Your task to perform on an android device: change text size in settings app Image 0: 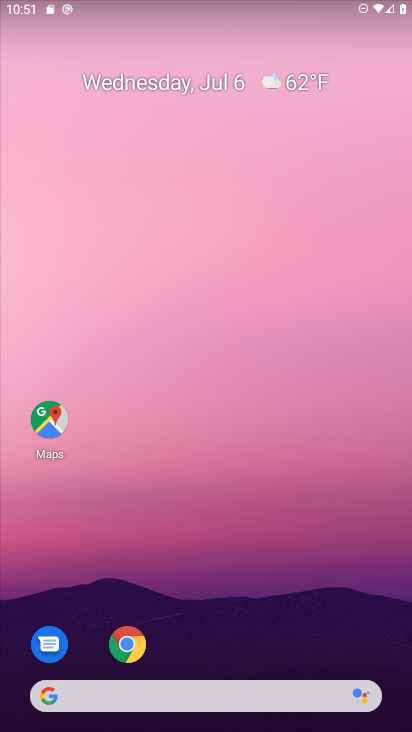
Step 0: press home button
Your task to perform on an android device: change text size in settings app Image 1: 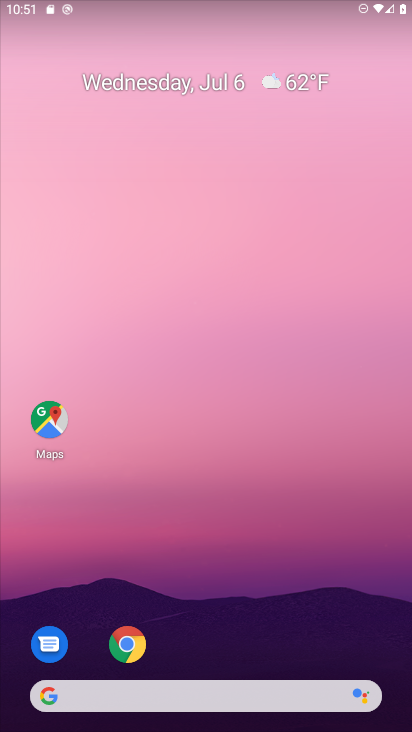
Step 1: drag from (250, 644) to (220, 185)
Your task to perform on an android device: change text size in settings app Image 2: 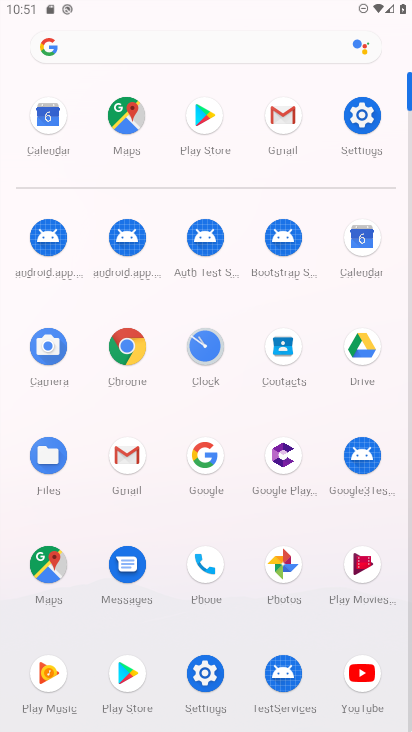
Step 2: click (367, 116)
Your task to perform on an android device: change text size in settings app Image 3: 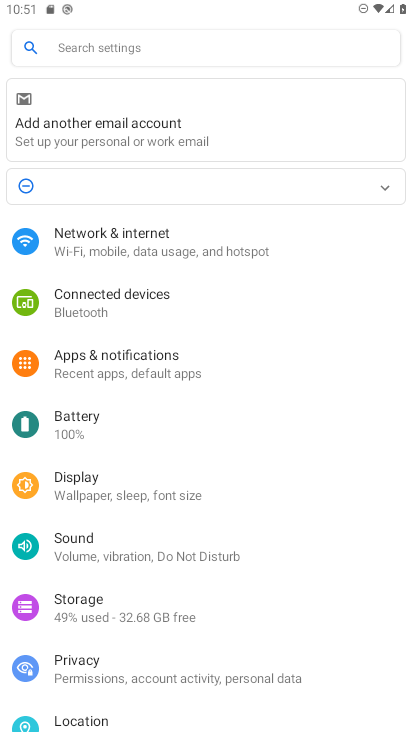
Step 3: click (83, 492)
Your task to perform on an android device: change text size in settings app Image 4: 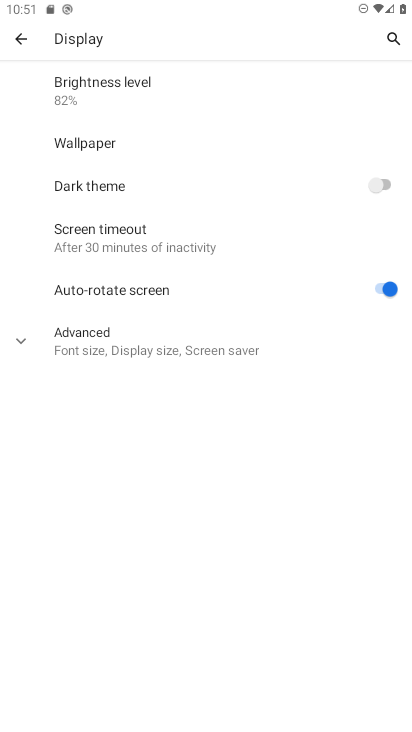
Step 4: click (108, 340)
Your task to perform on an android device: change text size in settings app Image 5: 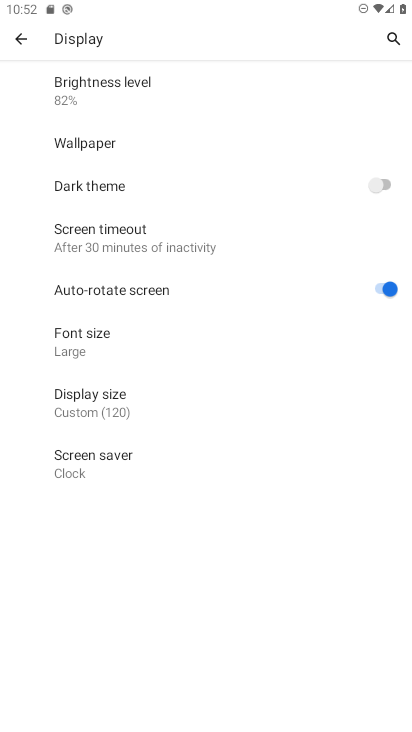
Step 5: click (68, 343)
Your task to perform on an android device: change text size in settings app Image 6: 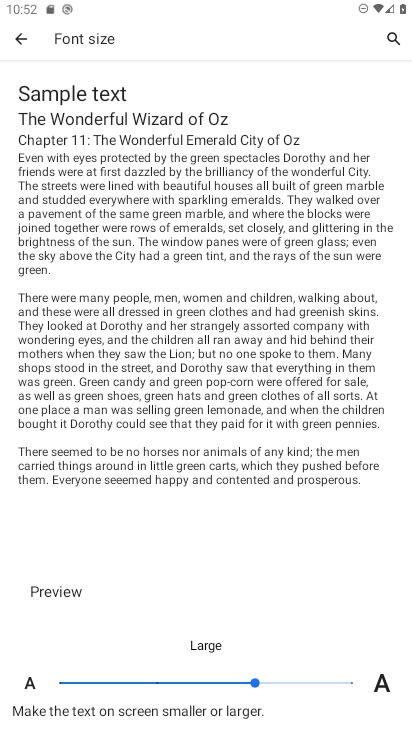
Step 6: task complete